Your task to perform on an android device: Show me the alarms in the clock app Image 0: 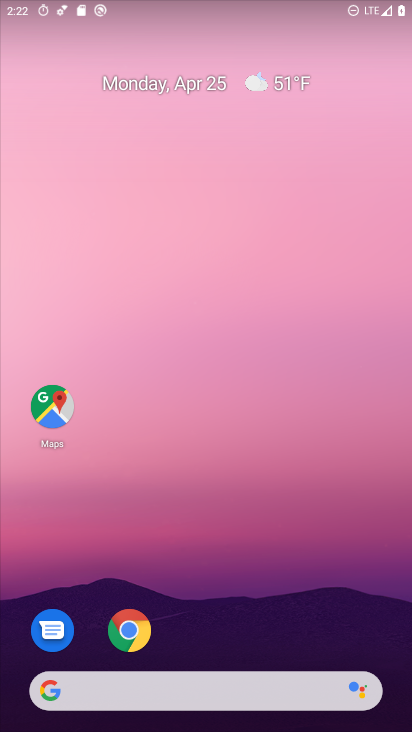
Step 0: drag from (165, 514) to (258, 178)
Your task to perform on an android device: Show me the alarms in the clock app Image 1: 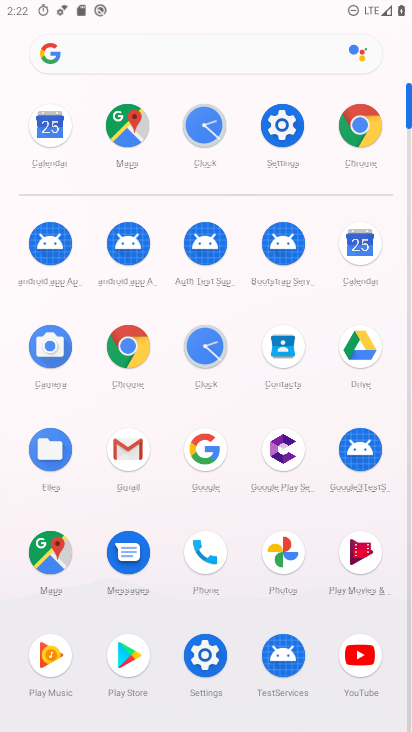
Step 1: click (209, 348)
Your task to perform on an android device: Show me the alarms in the clock app Image 2: 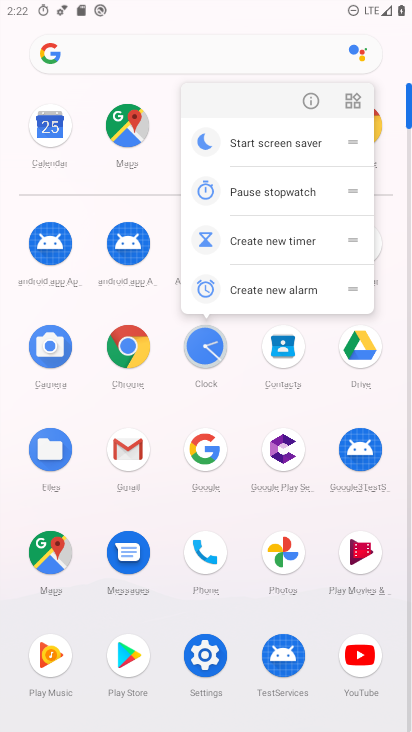
Step 2: click (304, 108)
Your task to perform on an android device: Show me the alarms in the clock app Image 3: 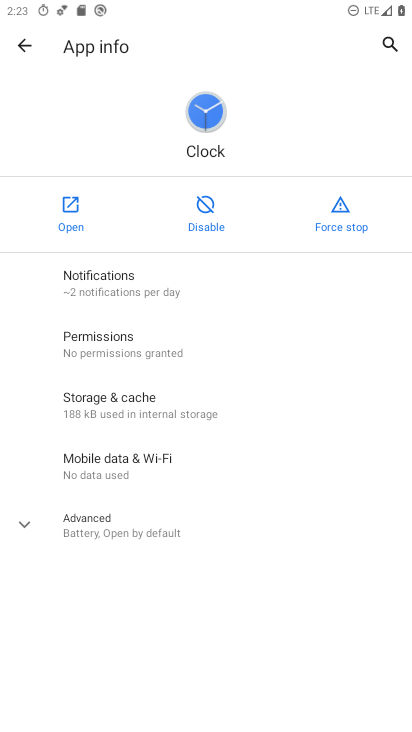
Step 3: click (69, 206)
Your task to perform on an android device: Show me the alarms in the clock app Image 4: 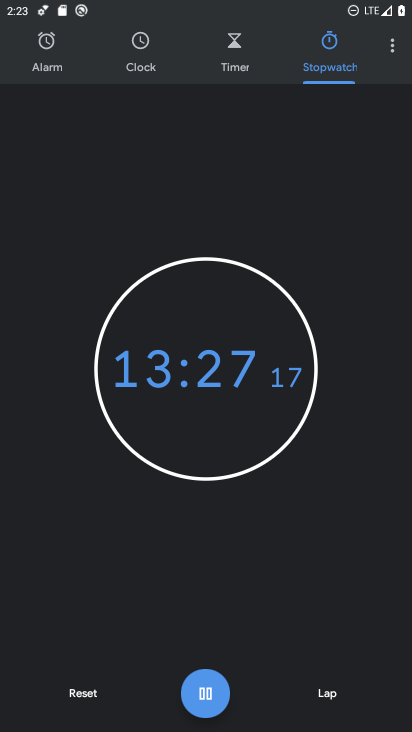
Step 4: click (52, 60)
Your task to perform on an android device: Show me the alarms in the clock app Image 5: 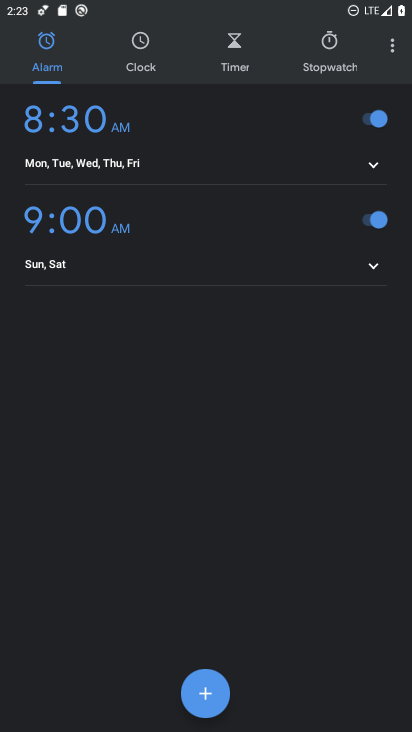
Step 5: task complete